Your task to perform on an android device: create a new album in the google photos Image 0: 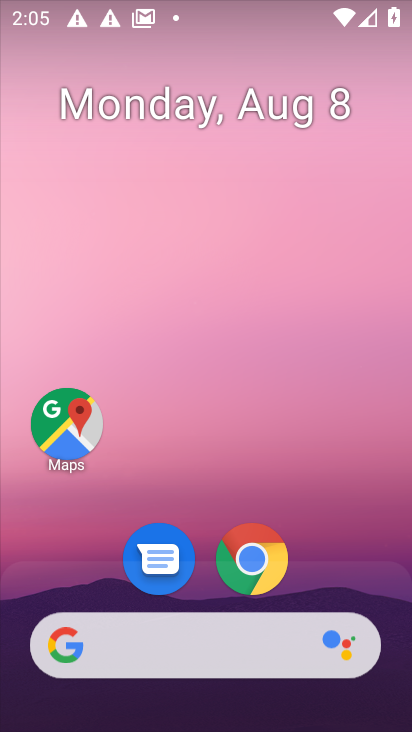
Step 0: drag from (163, 654) to (284, 99)
Your task to perform on an android device: create a new album in the google photos Image 1: 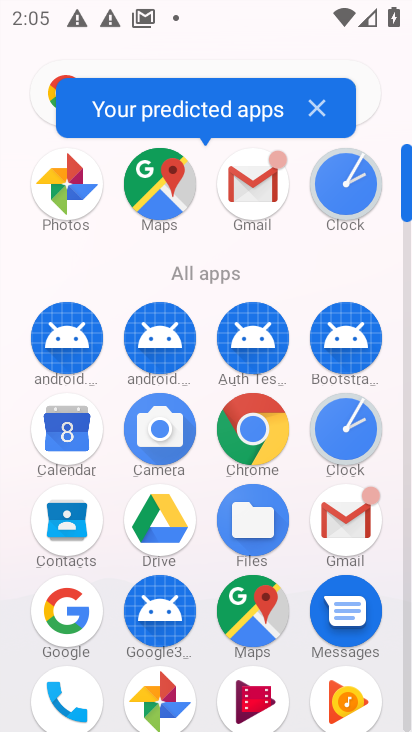
Step 1: click (73, 184)
Your task to perform on an android device: create a new album in the google photos Image 2: 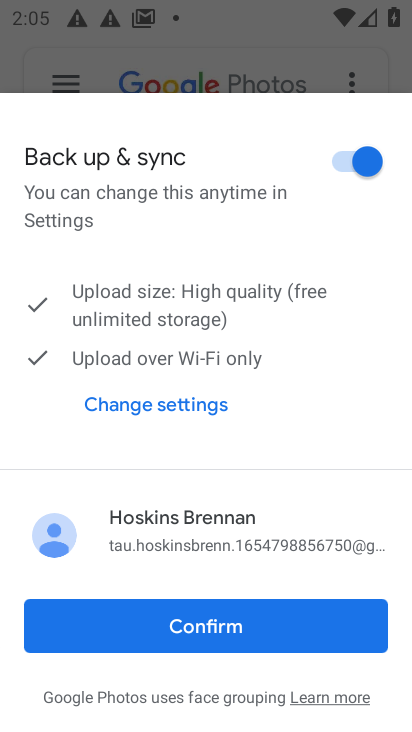
Step 2: click (209, 618)
Your task to perform on an android device: create a new album in the google photos Image 3: 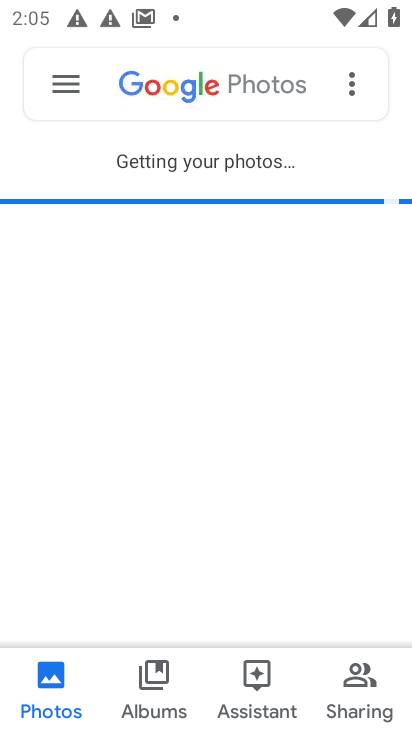
Step 3: click (354, 84)
Your task to perform on an android device: create a new album in the google photos Image 4: 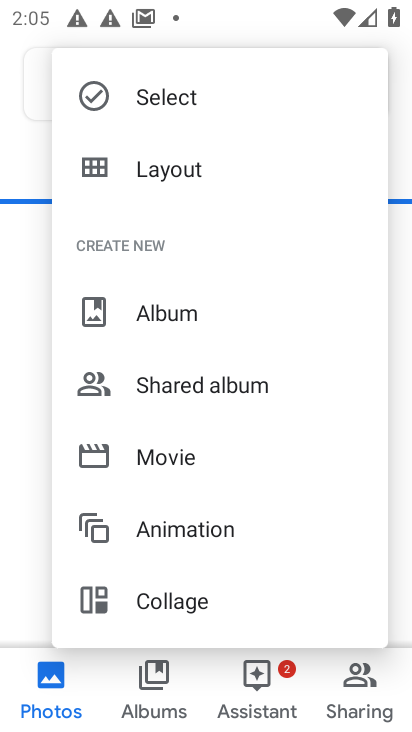
Step 4: click (182, 309)
Your task to perform on an android device: create a new album in the google photos Image 5: 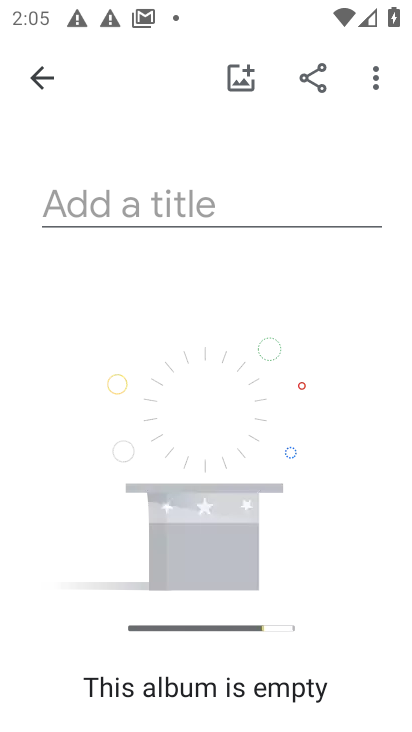
Step 5: click (215, 218)
Your task to perform on an android device: create a new album in the google photos Image 6: 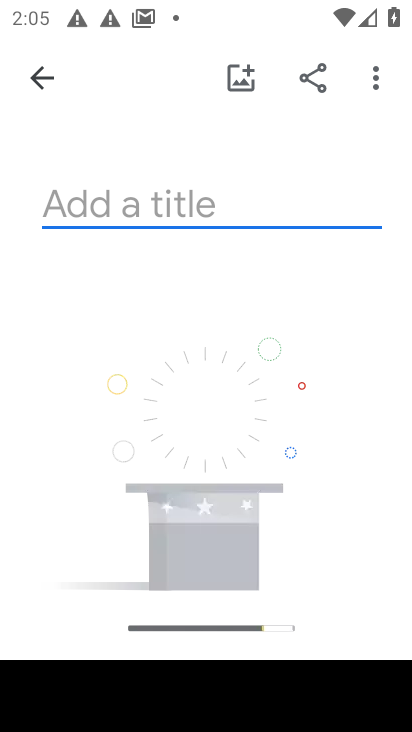
Step 6: type "fg"
Your task to perform on an android device: create a new album in the google photos Image 7: 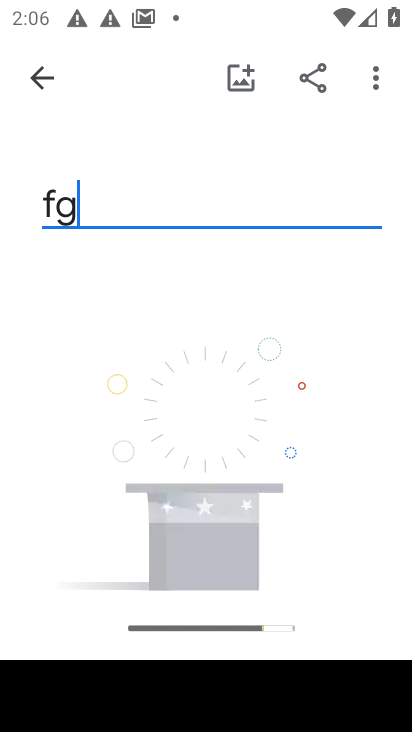
Step 7: type ""
Your task to perform on an android device: create a new album in the google photos Image 8: 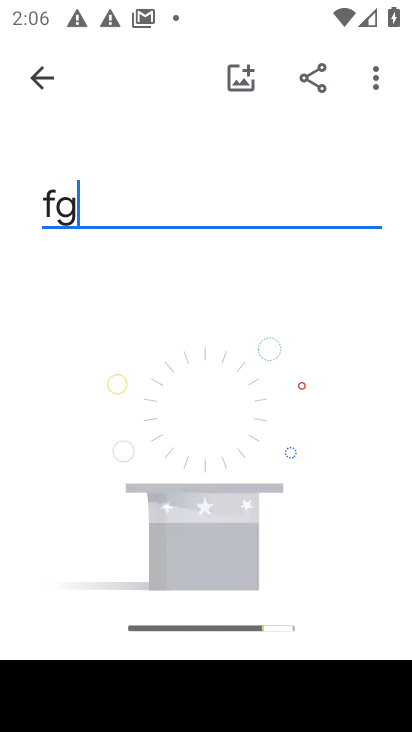
Step 8: drag from (284, 531) to (357, 220)
Your task to perform on an android device: create a new album in the google photos Image 9: 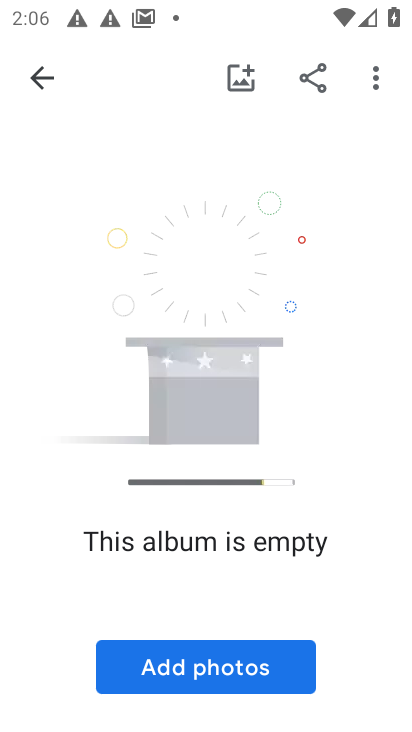
Step 9: click (233, 668)
Your task to perform on an android device: create a new album in the google photos Image 10: 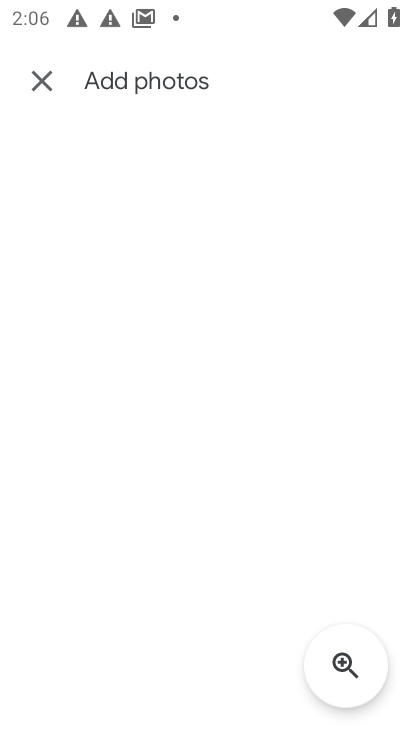
Step 10: task complete